Your task to perform on an android device: turn pop-ups on in chrome Image 0: 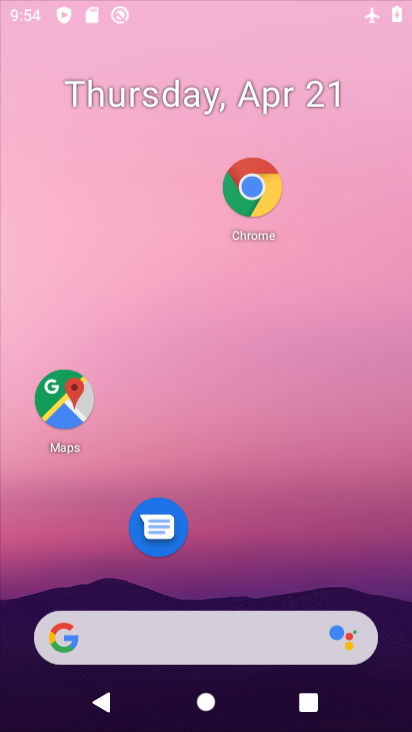
Step 0: drag from (269, 591) to (315, 265)
Your task to perform on an android device: turn pop-ups on in chrome Image 1: 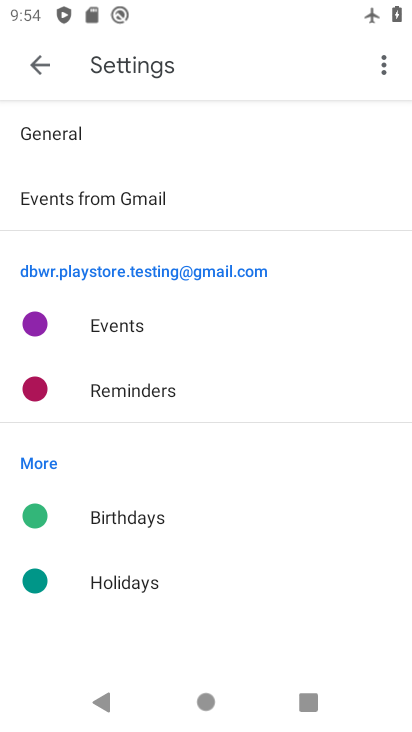
Step 1: press home button
Your task to perform on an android device: turn pop-ups on in chrome Image 2: 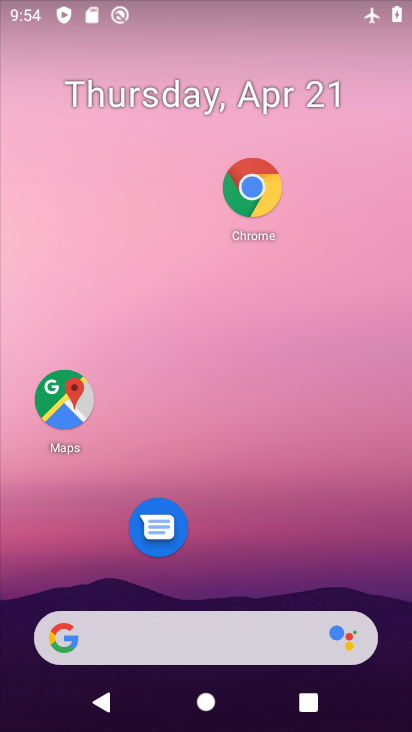
Step 2: drag from (254, 601) to (324, 289)
Your task to perform on an android device: turn pop-ups on in chrome Image 3: 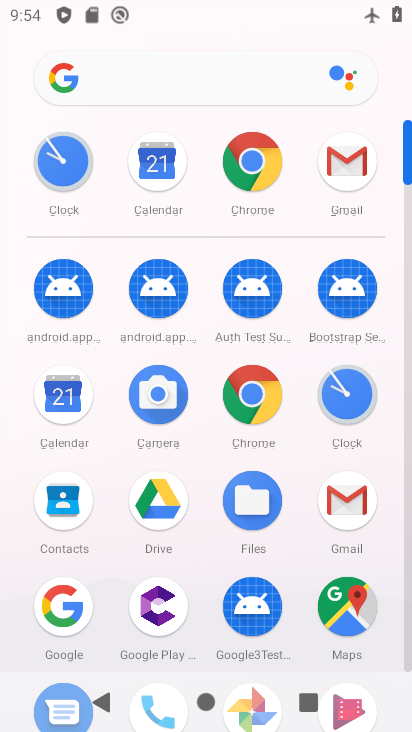
Step 3: click (246, 178)
Your task to perform on an android device: turn pop-ups on in chrome Image 4: 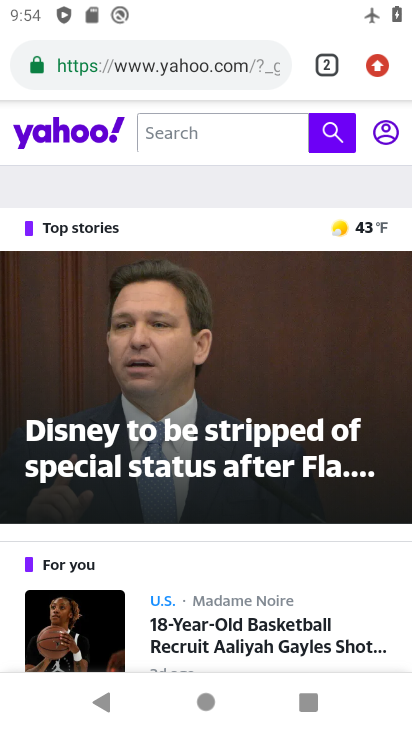
Step 4: click (391, 72)
Your task to perform on an android device: turn pop-ups on in chrome Image 5: 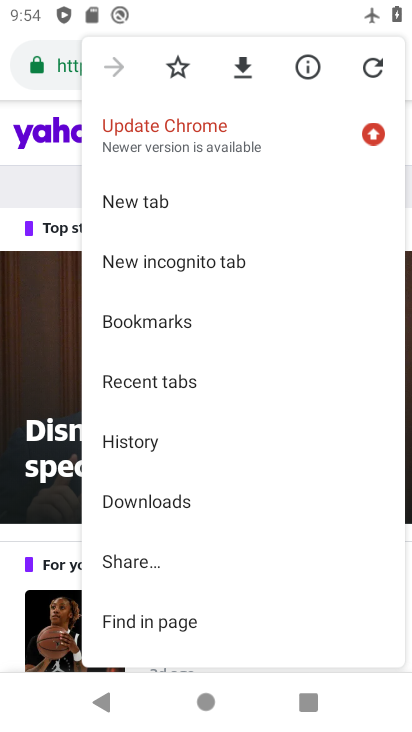
Step 5: drag from (232, 446) to (222, 284)
Your task to perform on an android device: turn pop-ups on in chrome Image 6: 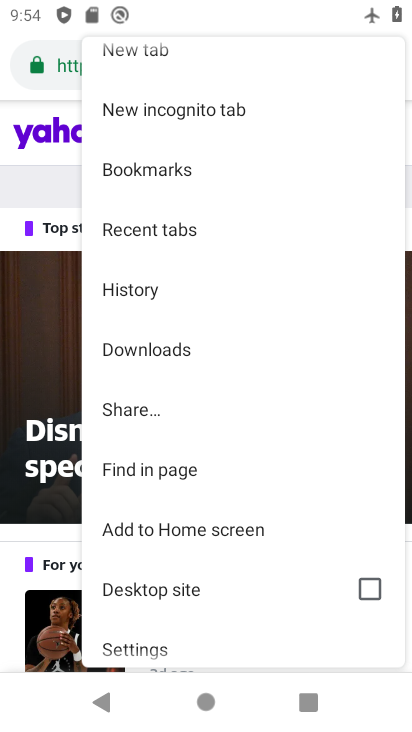
Step 6: drag from (204, 415) to (217, 241)
Your task to perform on an android device: turn pop-ups on in chrome Image 7: 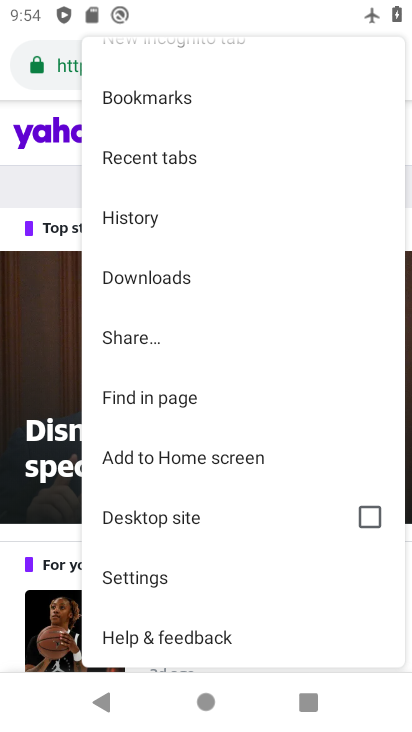
Step 7: click (181, 570)
Your task to perform on an android device: turn pop-ups on in chrome Image 8: 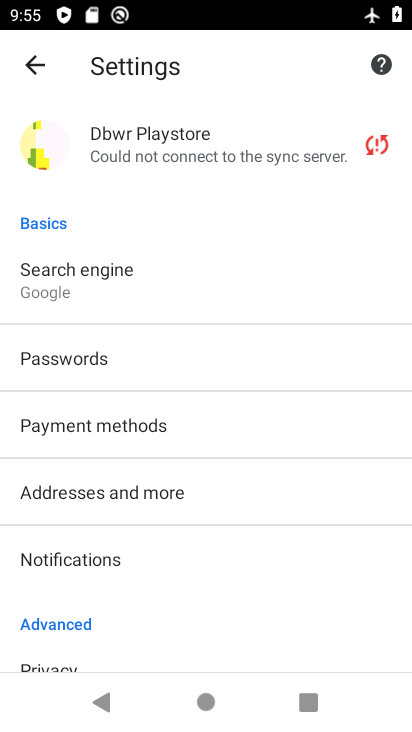
Step 8: drag from (181, 570) to (191, 316)
Your task to perform on an android device: turn pop-ups on in chrome Image 9: 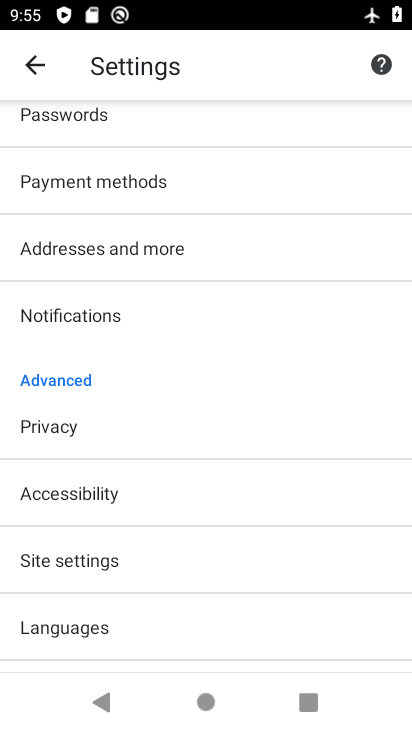
Step 9: click (198, 565)
Your task to perform on an android device: turn pop-ups on in chrome Image 10: 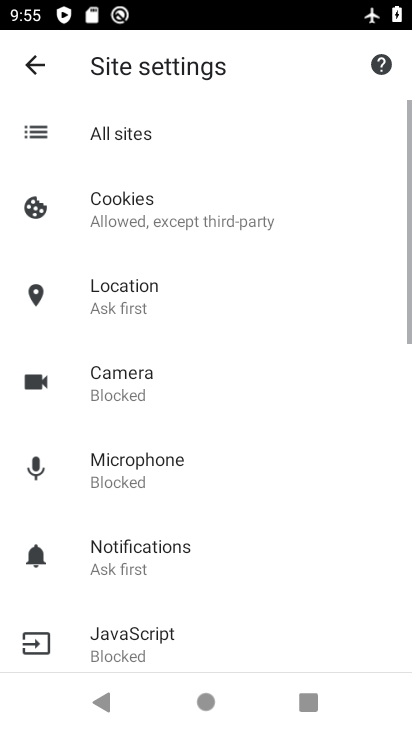
Step 10: drag from (198, 565) to (199, 410)
Your task to perform on an android device: turn pop-ups on in chrome Image 11: 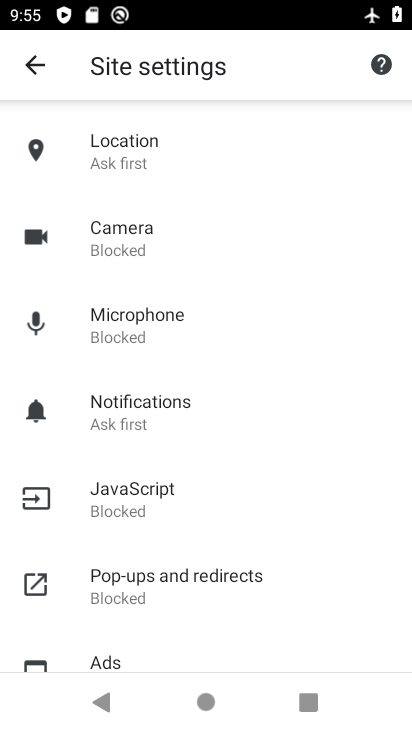
Step 11: drag from (184, 537) to (199, 450)
Your task to perform on an android device: turn pop-ups on in chrome Image 12: 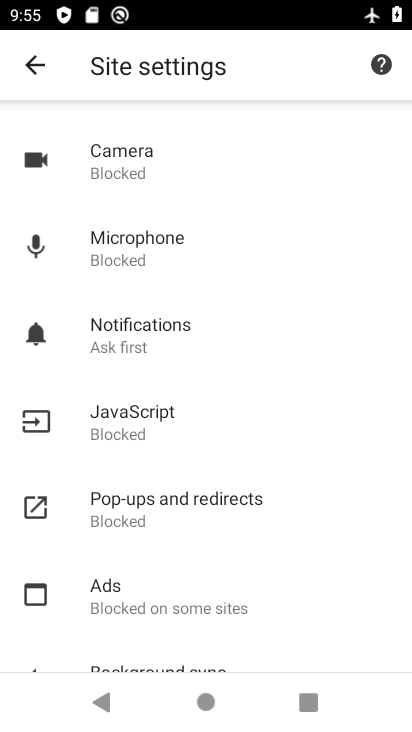
Step 12: drag from (186, 557) to (199, 379)
Your task to perform on an android device: turn pop-ups on in chrome Image 13: 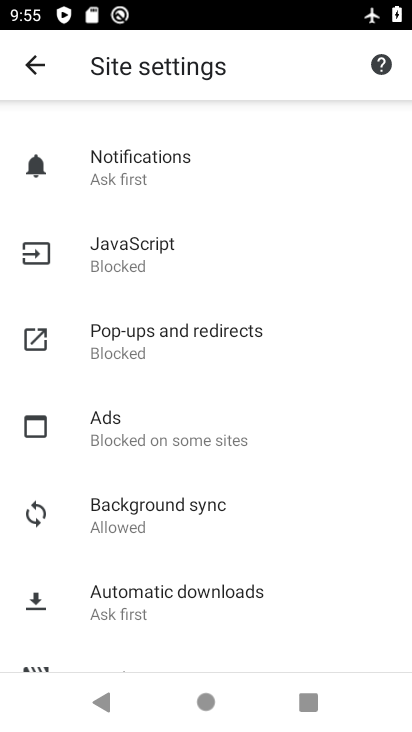
Step 13: click (246, 368)
Your task to perform on an android device: turn pop-ups on in chrome Image 14: 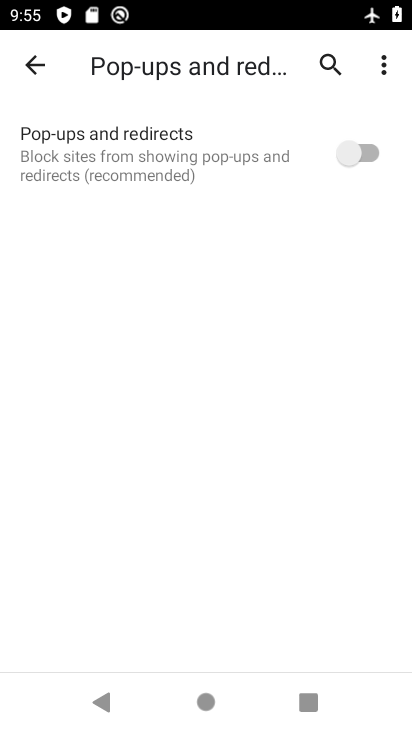
Step 14: click (364, 159)
Your task to perform on an android device: turn pop-ups on in chrome Image 15: 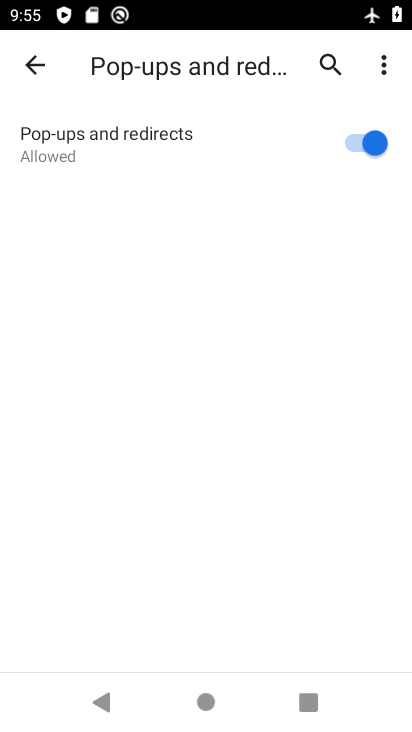
Step 15: task complete